Your task to perform on an android device: allow cookies in the chrome app Image 0: 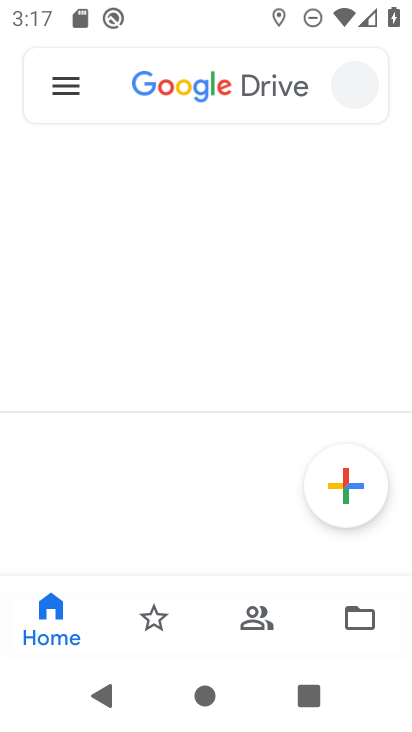
Step 0: drag from (403, 543) to (411, 469)
Your task to perform on an android device: allow cookies in the chrome app Image 1: 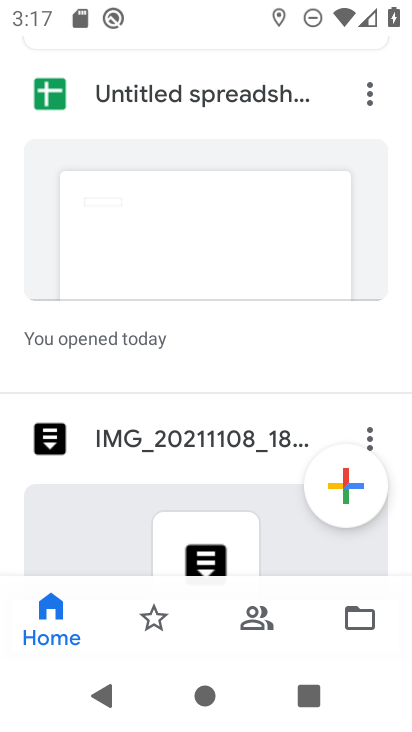
Step 1: press home button
Your task to perform on an android device: allow cookies in the chrome app Image 2: 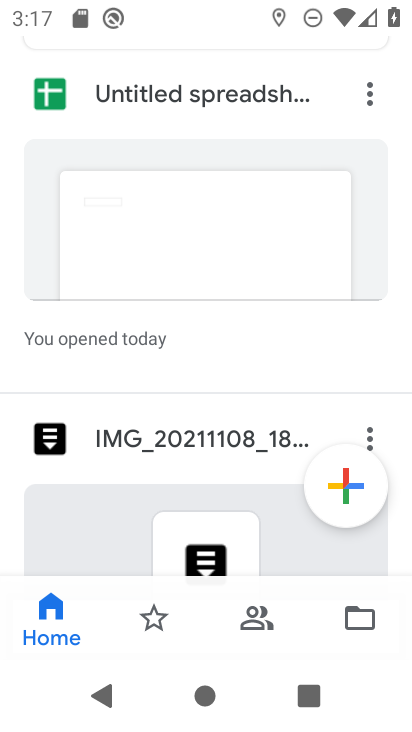
Step 2: click (381, 543)
Your task to perform on an android device: allow cookies in the chrome app Image 3: 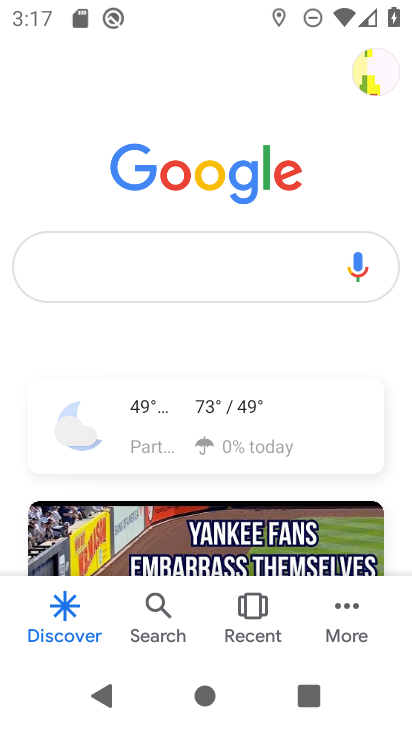
Step 3: press home button
Your task to perform on an android device: allow cookies in the chrome app Image 4: 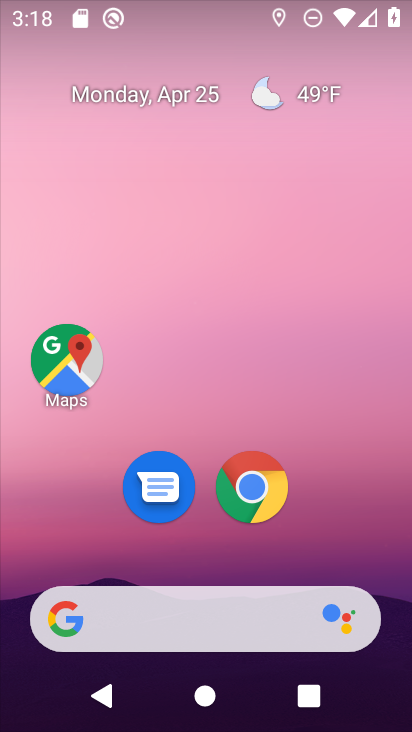
Step 4: click (244, 498)
Your task to perform on an android device: allow cookies in the chrome app Image 5: 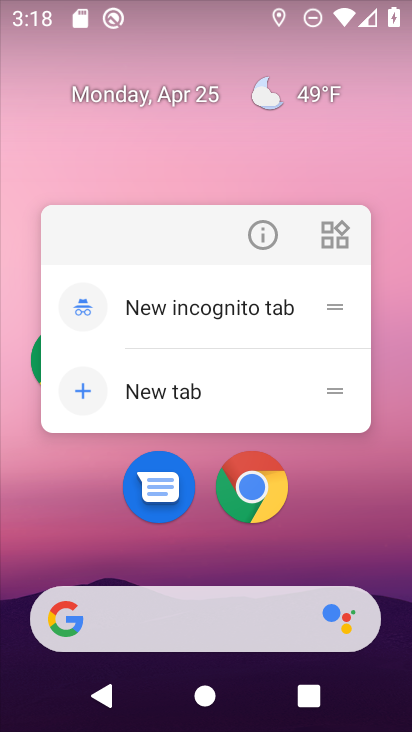
Step 5: click (247, 495)
Your task to perform on an android device: allow cookies in the chrome app Image 6: 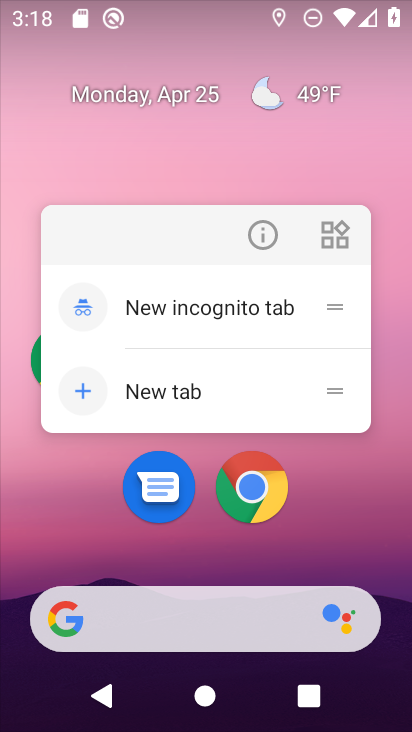
Step 6: click (248, 495)
Your task to perform on an android device: allow cookies in the chrome app Image 7: 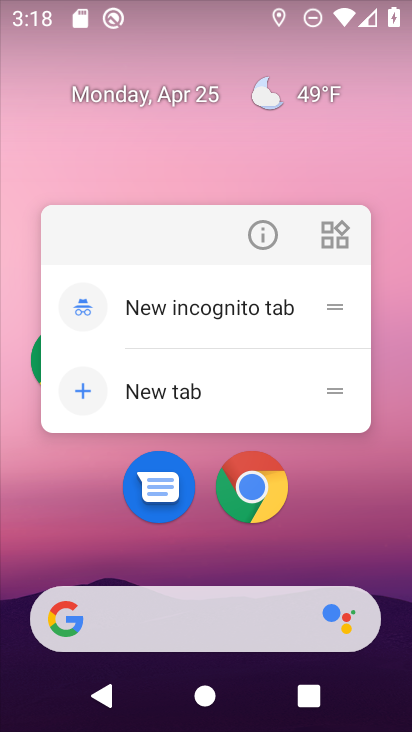
Step 7: click (248, 495)
Your task to perform on an android device: allow cookies in the chrome app Image 8: 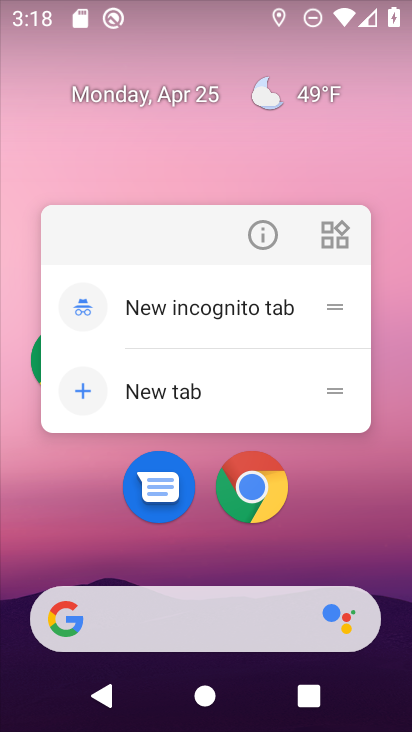
Step 8: click (248, 495)
Your task to perform on an android device: allow cookies in the chrome app Image 9: 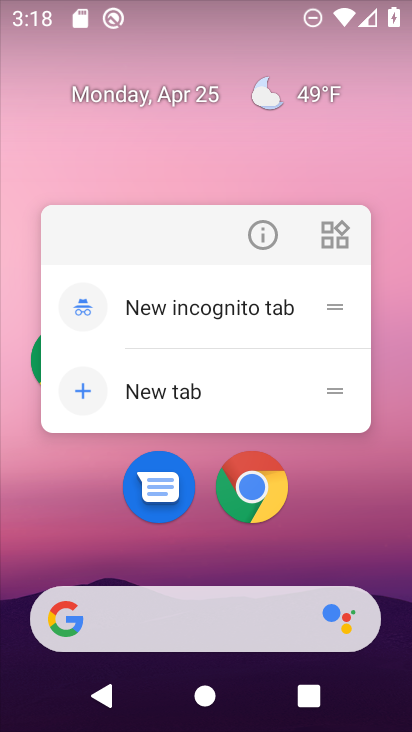
Step 9: click (266, 490)
Your task to perform on an android device: allow cookies in the chrome app Image 10: 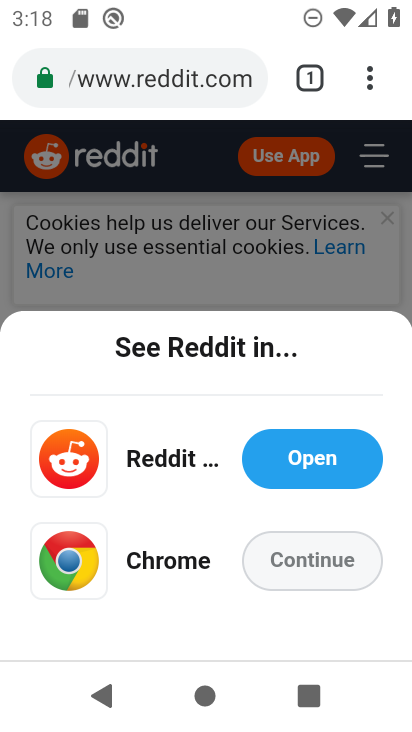
Step 10: drag from (370, 79) to (90, 551)
Your task to perform on an android device: allow cookies in the chrome app Image 11: 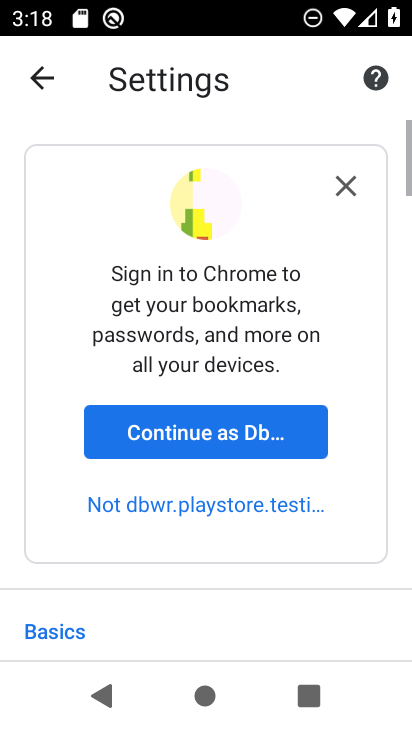
Step 11: drag from (162, 584) to (150, 194)
Your task to perform on an android device: allow cookies in the chrome app Image 12: 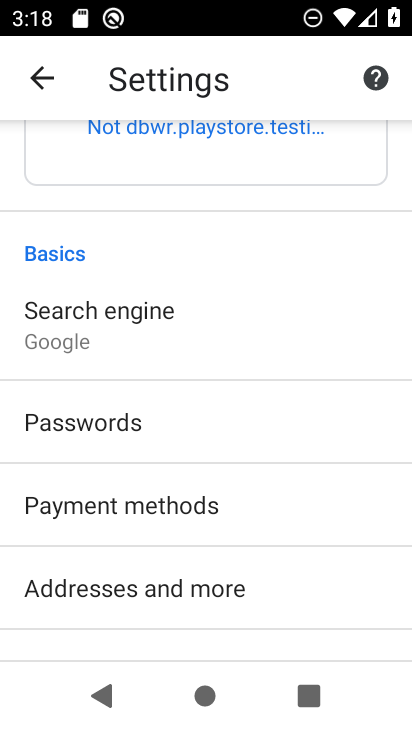
Step 12: drag from (161, 502) to (159, 87)
Your task to perform on an android device: allow cookies in the chrome app Image 13: 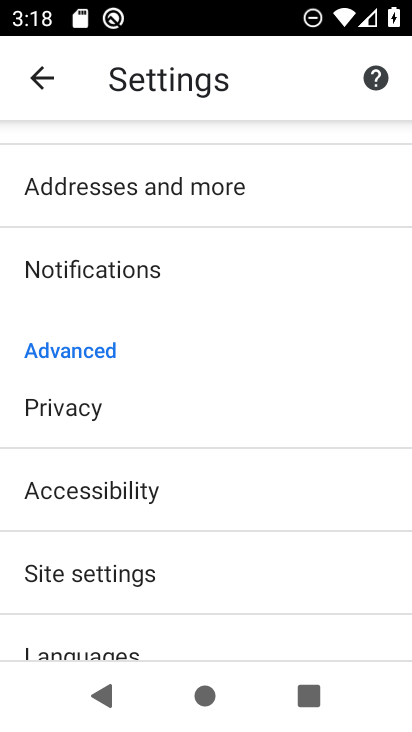
Step 13: click (111, 572)
Your task to perform on an android device: allow cookies in the chrome app Image 14: 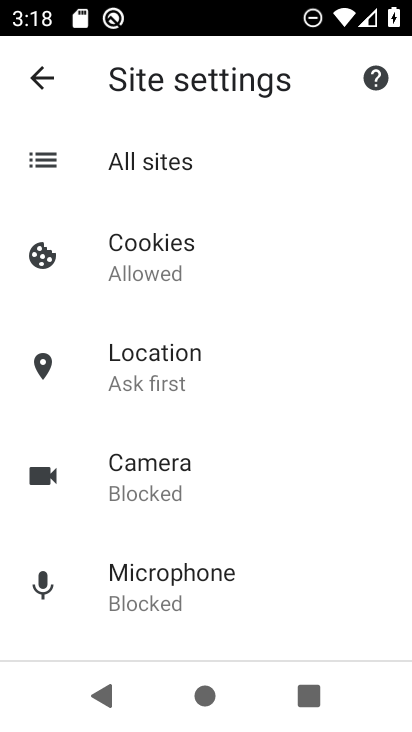
Step 14: click (150, 240)
Your task to perform on an android device: allow cookies in the chrome app Image 15: 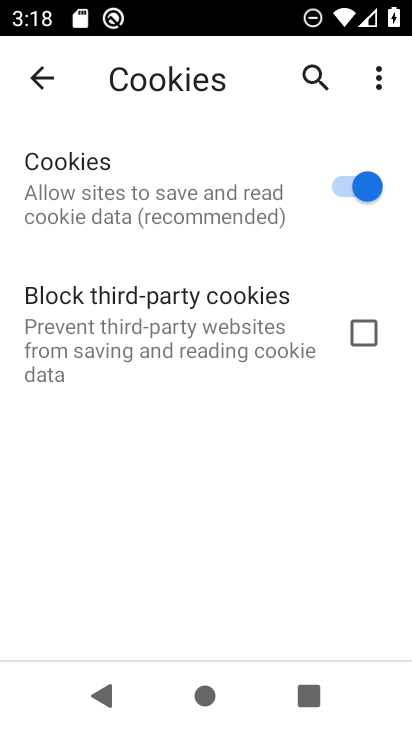
Step 15: task complete